Your task to perform on an android device: open a new tab in the chrome app Image 0: 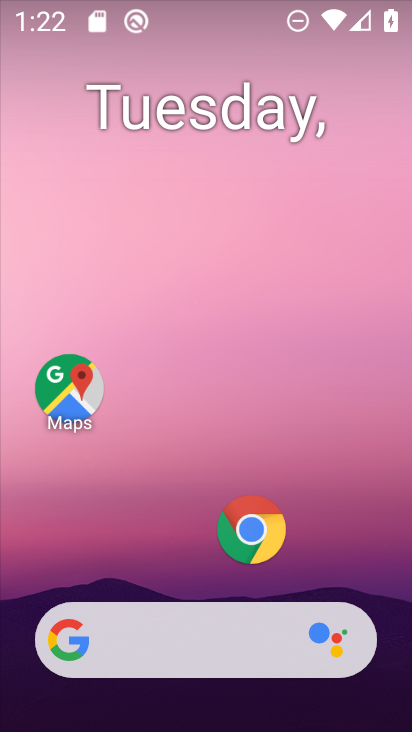
Step 0: press home button
Your task to perform on an android device: open a new tab in the chrome app Image 1: 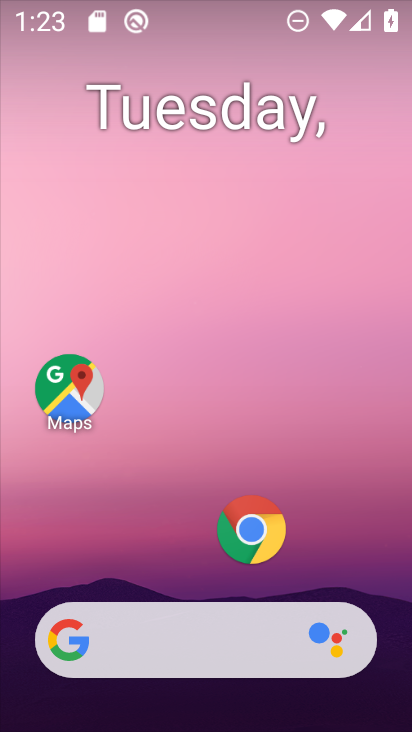
Step 1: drag from (206, 683) to (214, 371)
Your task to perform on an android device: open a new tab in the chrome app Image 2: 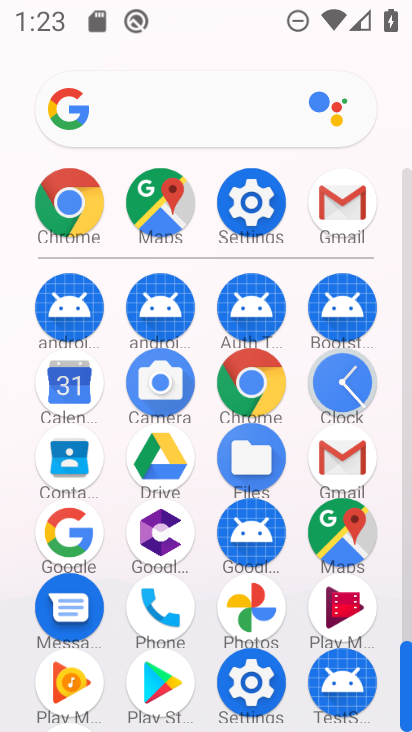
Step 2: click (91, 219)
Your task to perform on an android device: open a new tab in the chrome app Image 3: 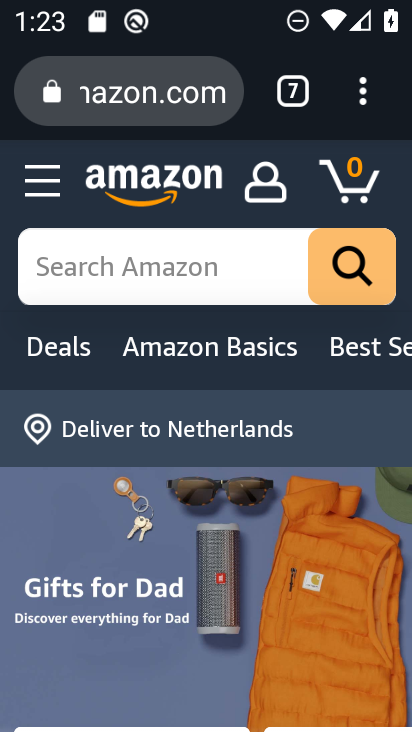
Step 3: click (366, 88)
Your task to perform on an android device: open a new tab in the chrome app Image 4: 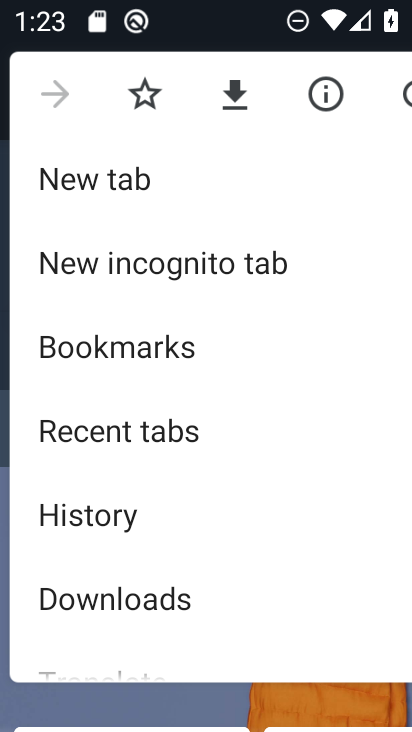
Step 4: click (130, 186)
Your task to perform on an android device: open a new tab in the chrome app Image 5: 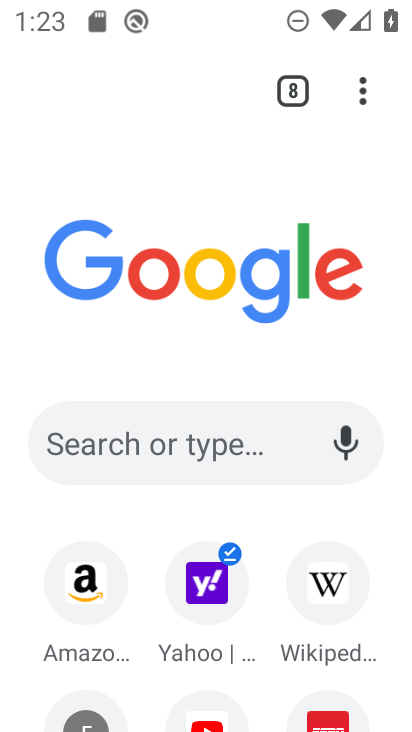
Step 5: task complete